Your task to perform on an android device: Open Chrome and go to settings Image 0: 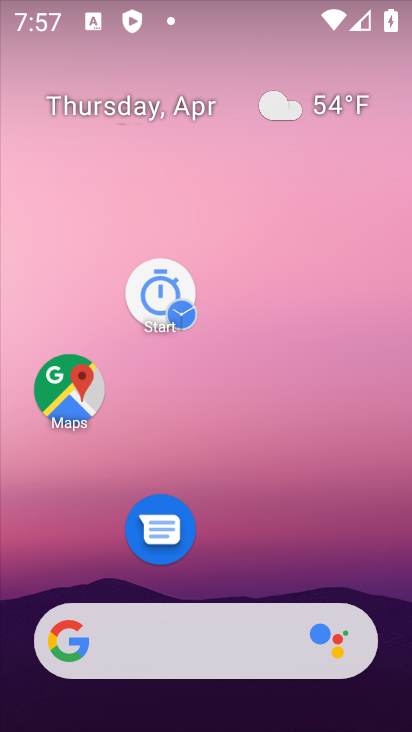
Step 0: drag from (234, 548) to (154, 124)
Your task to perform on an android device: Open Chrome and go to settings Image 1: 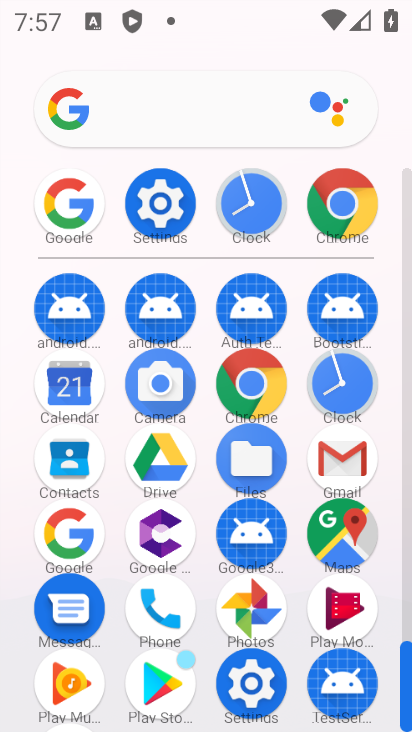
Step 1: click (355, 210)
Your task to perform on an android device: Open Chrome and go to settings Image 2: 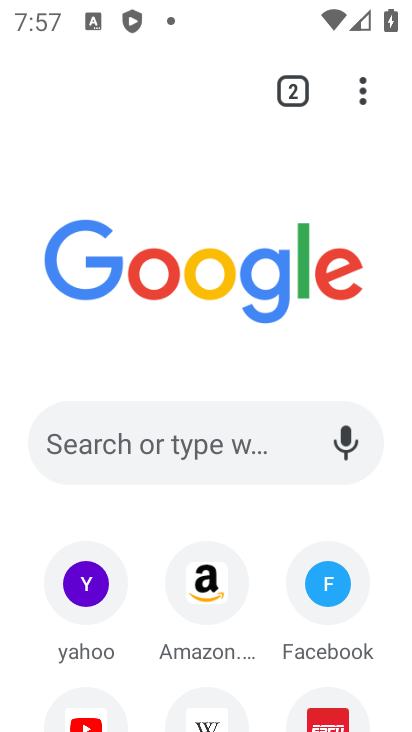
Step 2: click (352, 218)
Your task to perform on an android device: Open Chrome and go to settings Image 3: 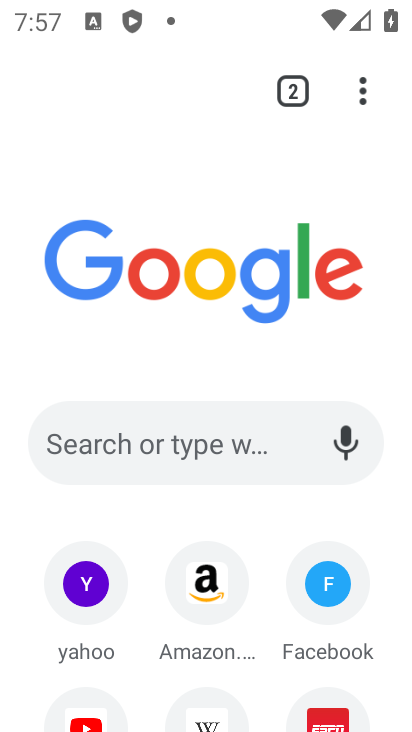
Step 3: click (362, 94)
Your task to perform on an android device: Open Chrome and go to settings Image 4: 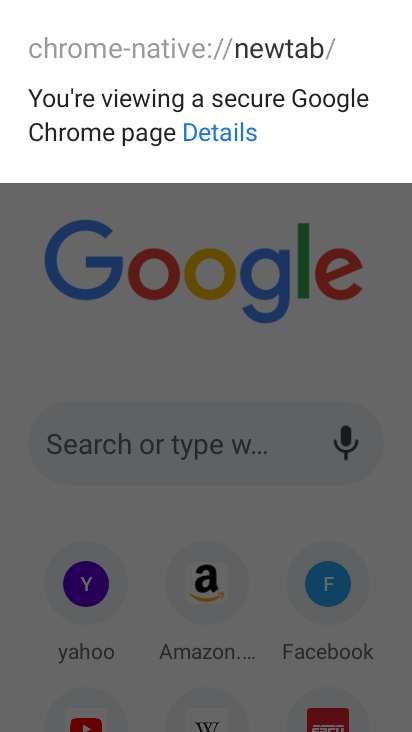
Step 4: click (337, 205)
Your task to perform on an android device: Open Chrome and go to settings Image 5: 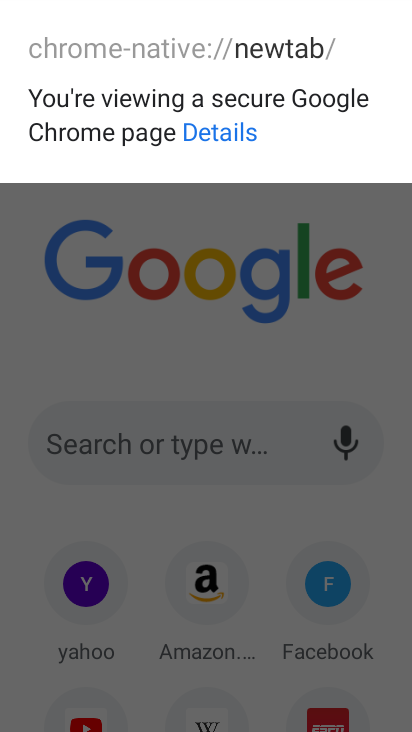
Step 5: click (334, 201)
Your task to perform on an android device: Open Chrome and go to settings Image 6: 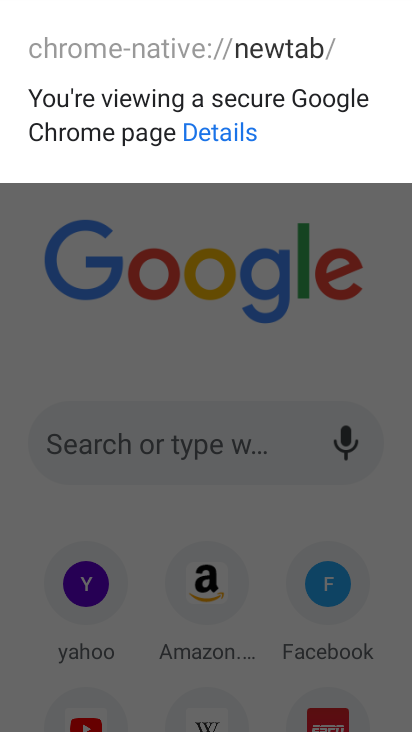
Step 6: click (331, 219)
Your task to perform on an android device: Open Chrome and go to settings Image 7: 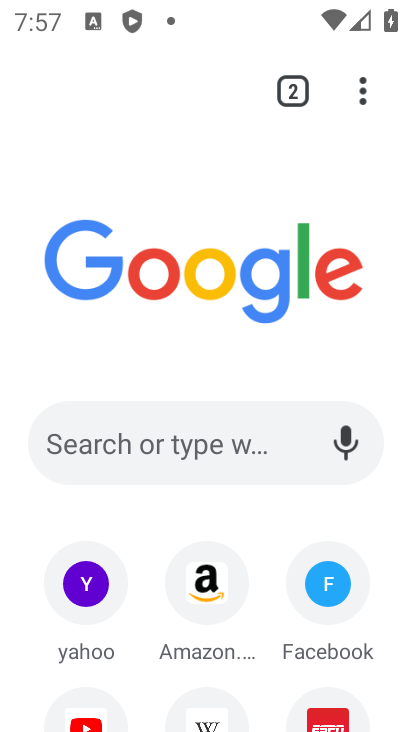
Step 7: click (363, 85)
Your task to perform on an android device: Open Chrome and go to settings Image 8: 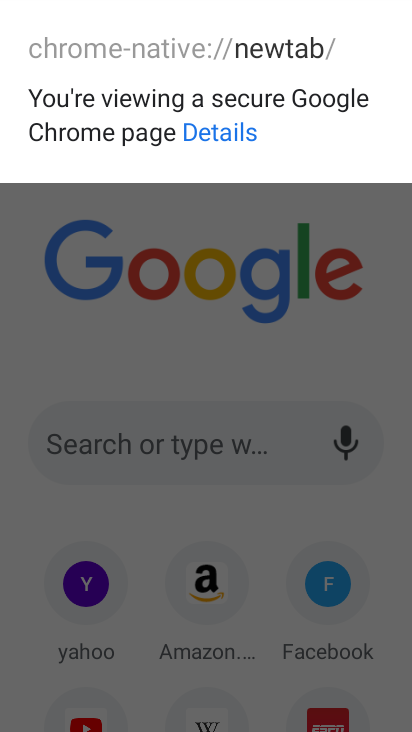
Step 8: click (402, 232)
Your task to perform on an android device: Open Chrome and go to settings Image 9: 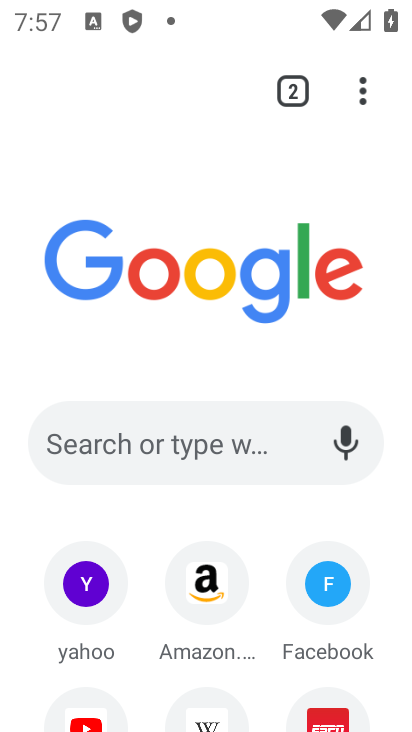
Step 9: task complete